Your task to perform on an android device: See recent photos Image 0: 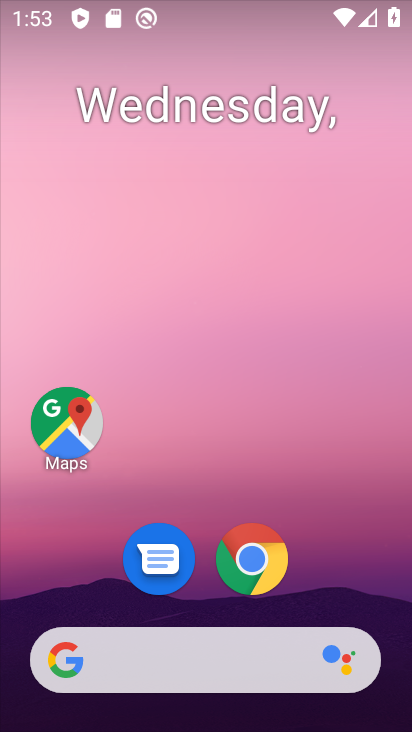
Step 0: drag from (320, 582) to (306, 131)
Your task to perform on an android device: See recent photos Image 1: 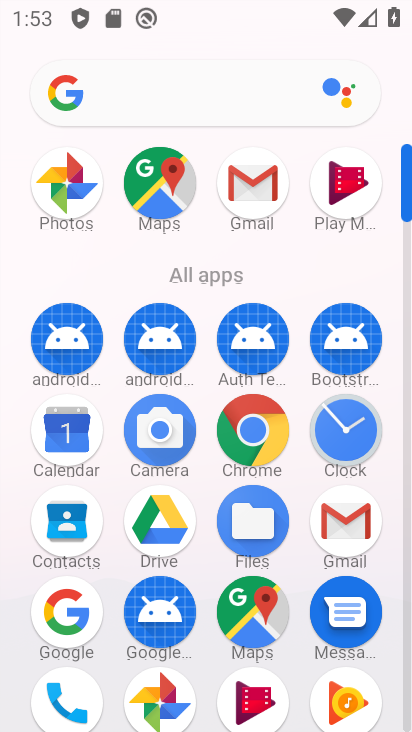
Step 1: click (177, 688)
Your task to perform on an android device: See recent photos Image 2: 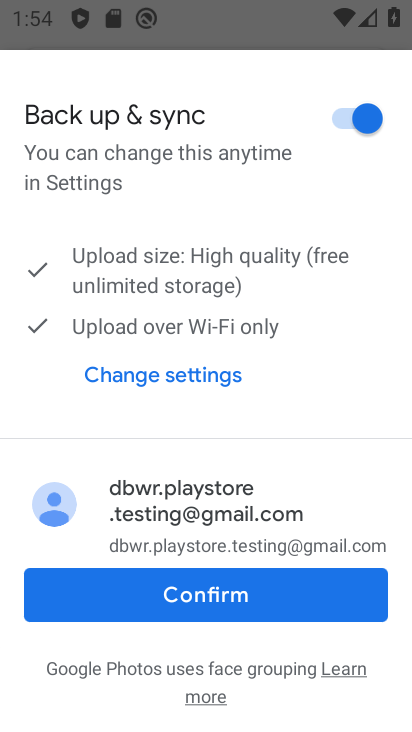
Step 2: click (203, 583)
Your task to perform on an android device: See recent photos Image 3: 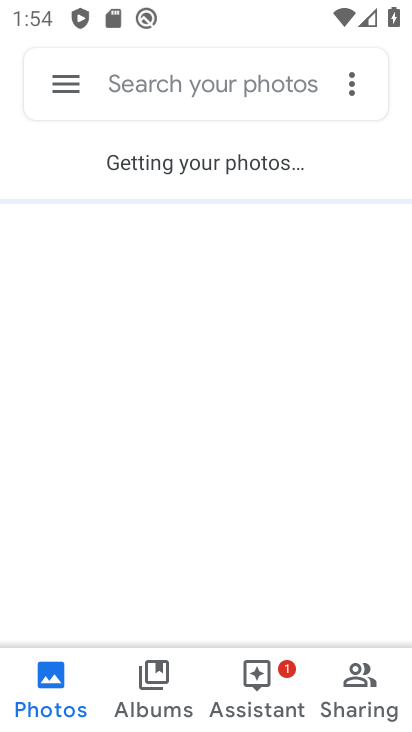
Step 3: click (94, 246)
Your task to perform on an android device: See recent photos Image 4: 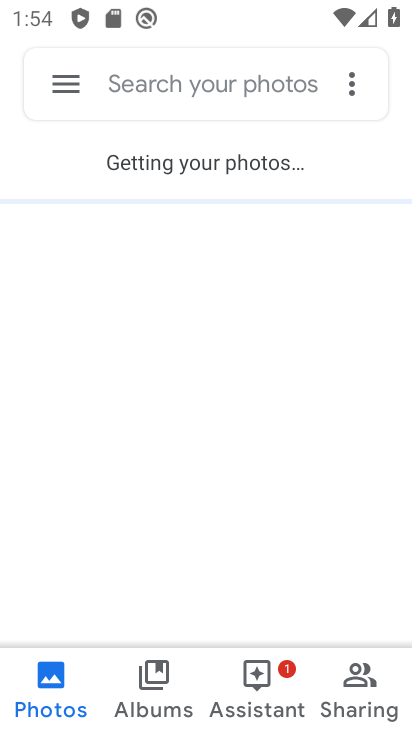
Step 4: click (94, 246)
Your task to perform on an android device: See recent photos Image 5: 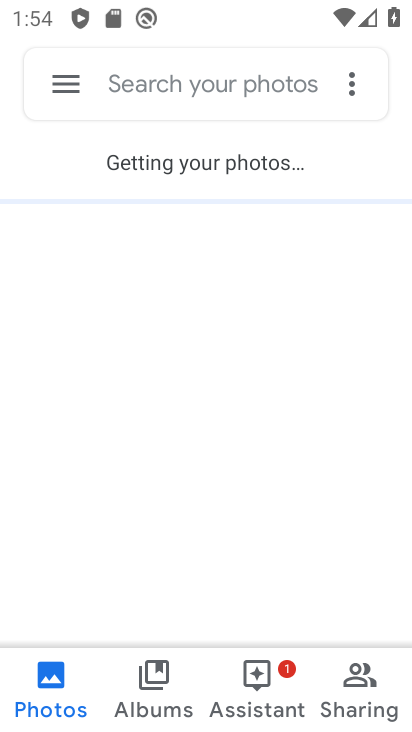
Step 5: click (94, 246)
Your task to perform on an android device: See recent photos Image 6: 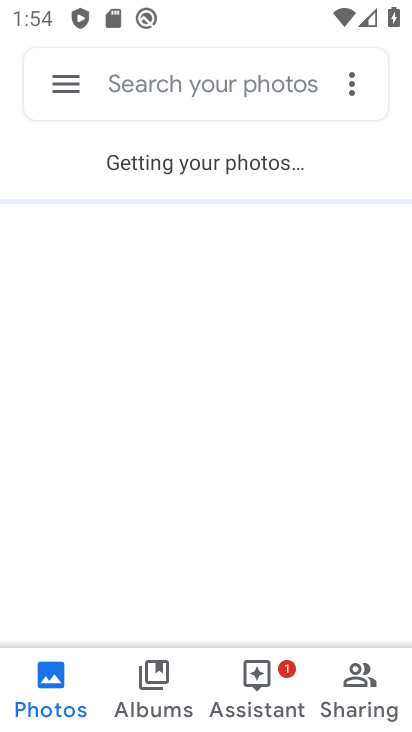
Step 6: click (94, 246)
Your task to perform on an android device: See recent photos Image 7: 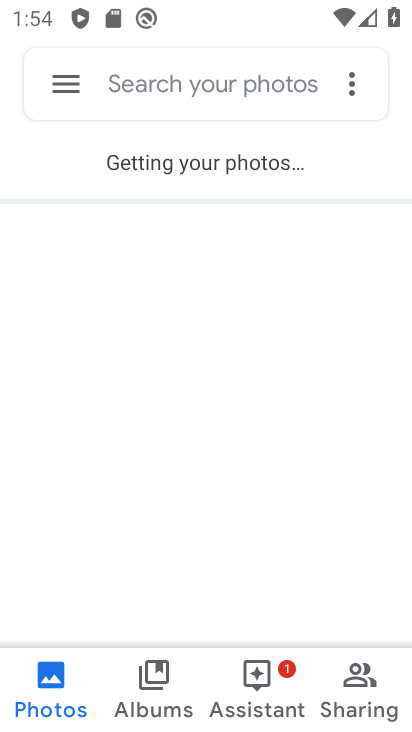
Step 7: click (94, 246)
Your task to perform on an android device: See recent photos Image 8: 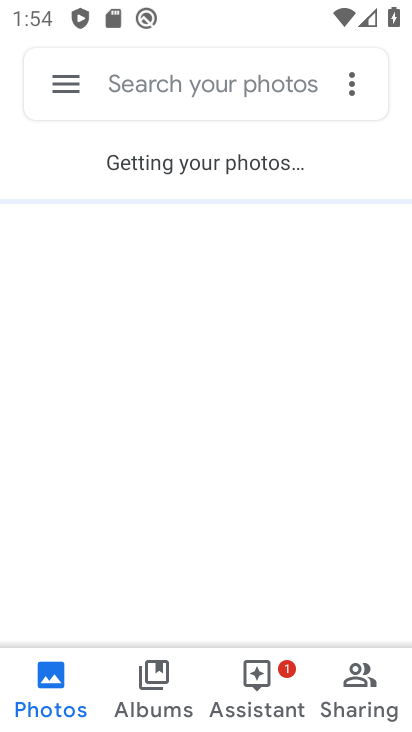
Step 8: click (94, 246)
Your task to perform on an android device: See recent photos Image 9: 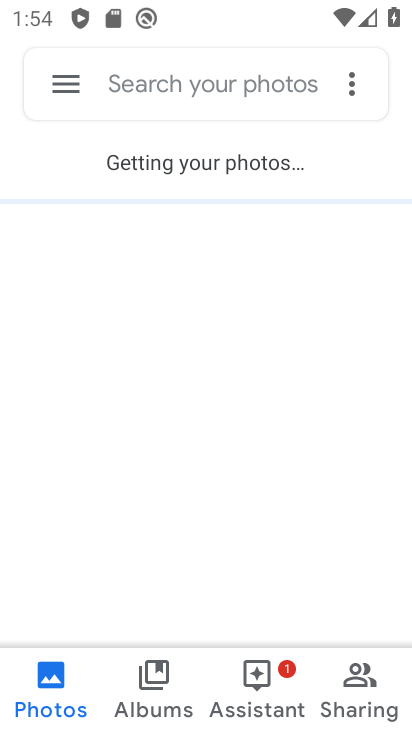
Step 9: click (94, 246)
Your task to perform on an android device: See recent photos Image 10: 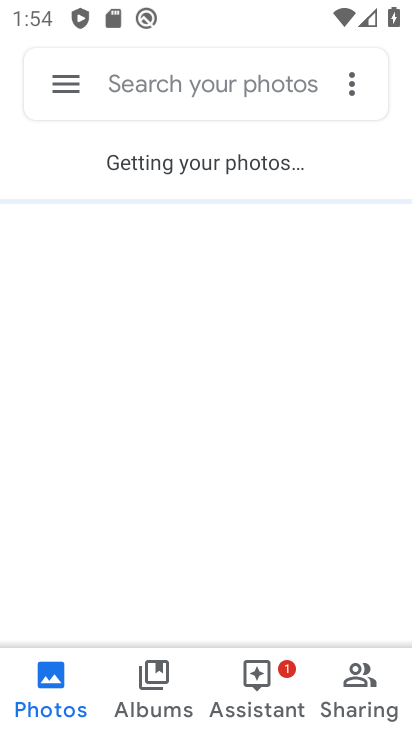
Step 10: click (94, 246)
Your task to perform on an android device: See recent photos Image 11: 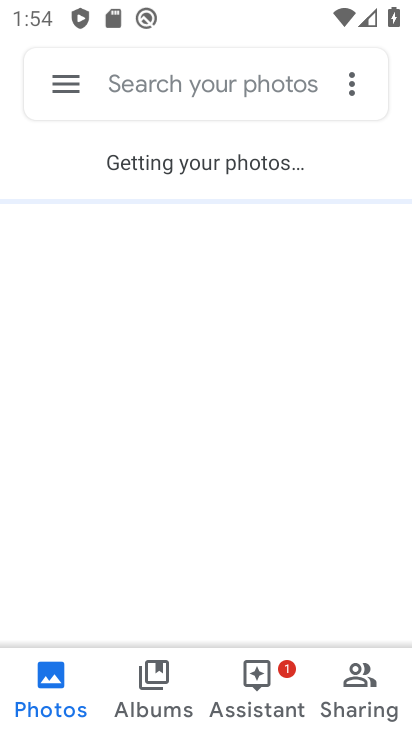
Step 11: click (94, 246)
Your task to perform on an android device: See recent photos Image 12: 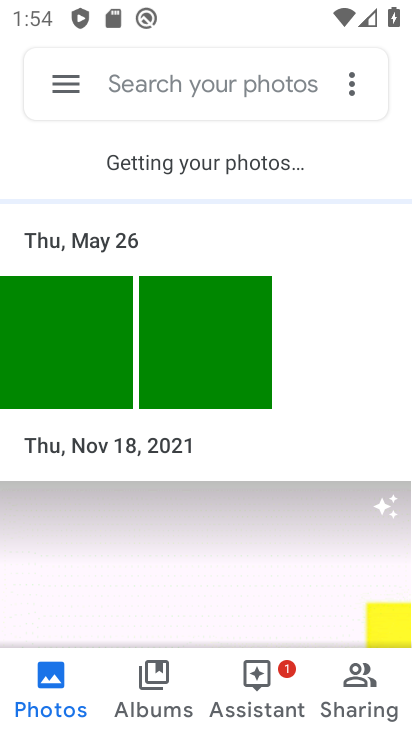
Step 12: task complete